Your task to perform on an android device: Open Wikipedia Image 0: 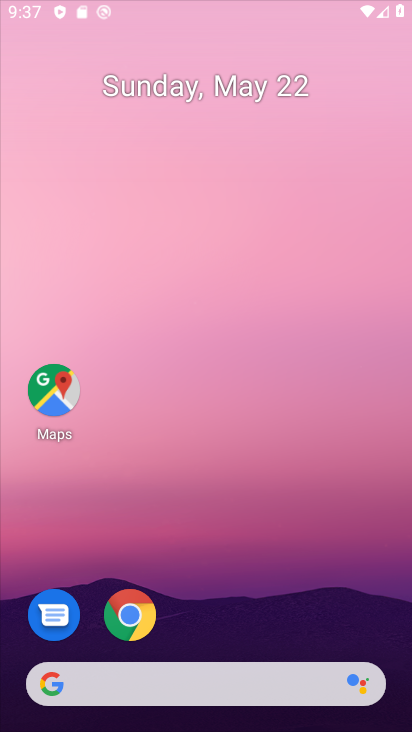
Step 0: drag from (295, 623) to (280, 203)
Your task to perform on an android device: Open Wikipedia Image 1: 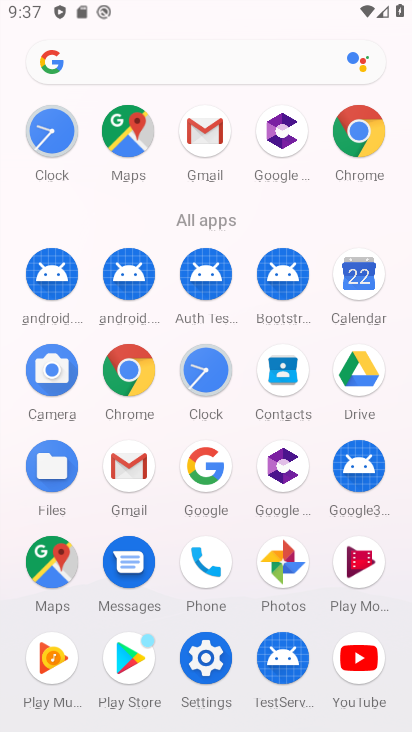
Step 1: click (339, 128)
Your task to perform on an android device: Open Wikipedia Image 2: 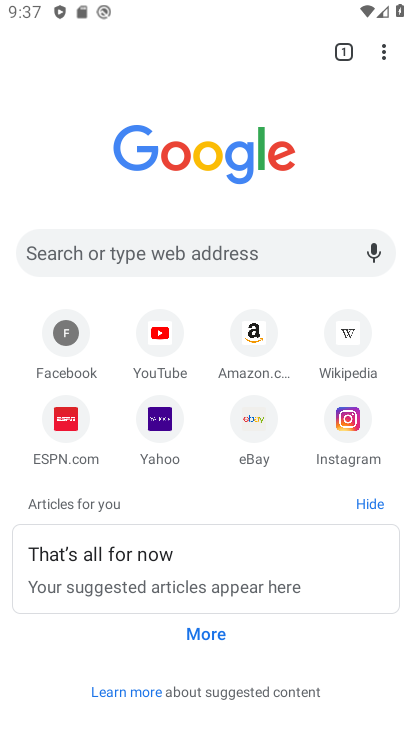
Step 2: click (362, 332)
Your task to perform on an android device: Open Wikipedia Image 3: 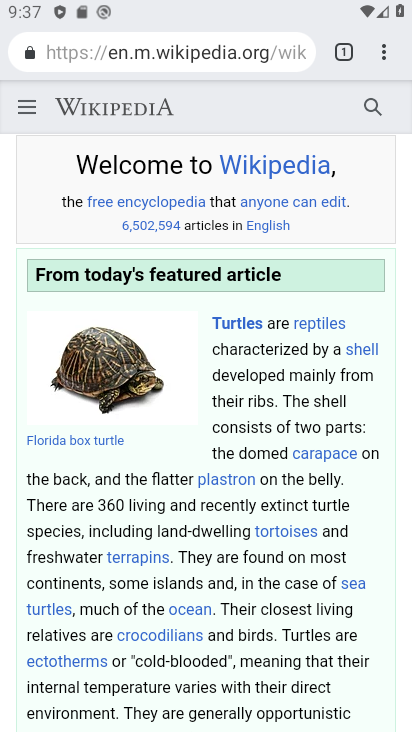
Step 3: task complete